Your task to perform on an android device: clear history in the chrome app Image 0: 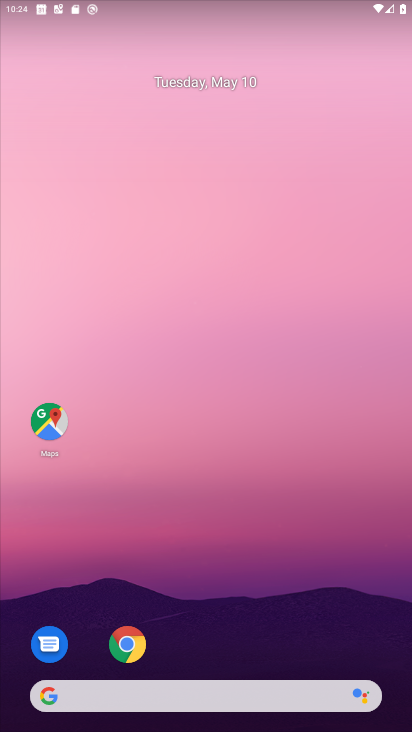
Step 0: drag from (232, 650) to (260, 359)
Your task to perform on an android device: clear history in the chrome app Image 1: 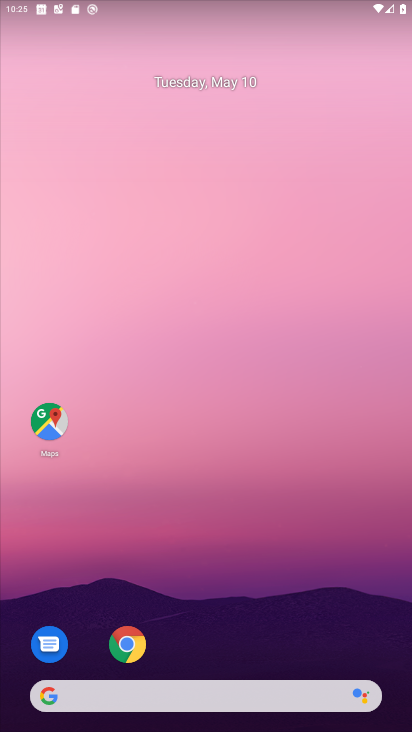
Step 1: drag from (195, 618) to (253, 212)
Your task to perform on an android device: clear history in the chrome app Image 2: 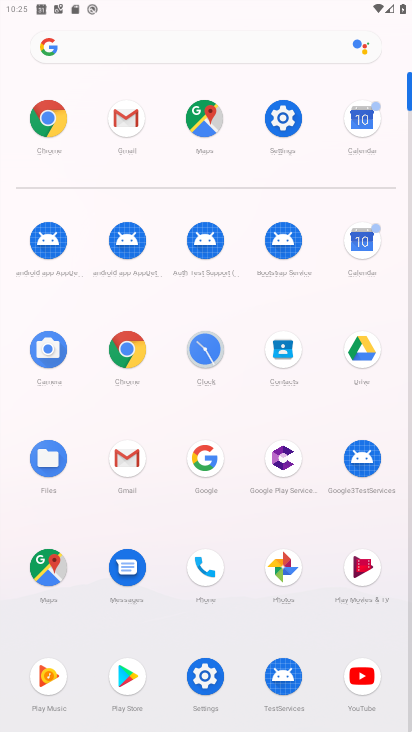
Step 2: click (138, 352)
Your task to perform on an android device: clear history in the chrome app Image 3: 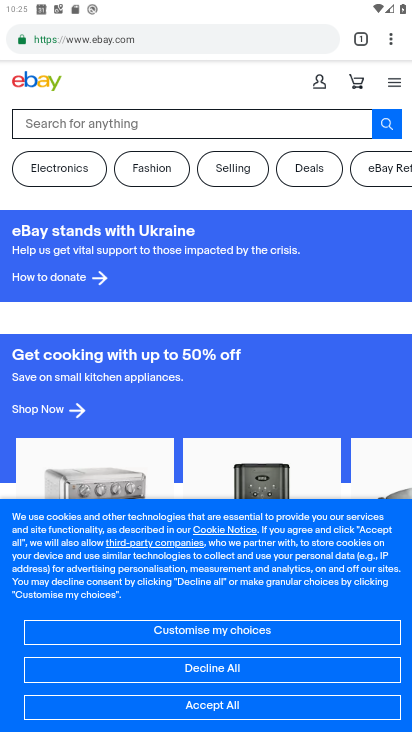
Step 3: click (392, 46)
Your task to perform on an android device: clear history in the chrome app Image 4: 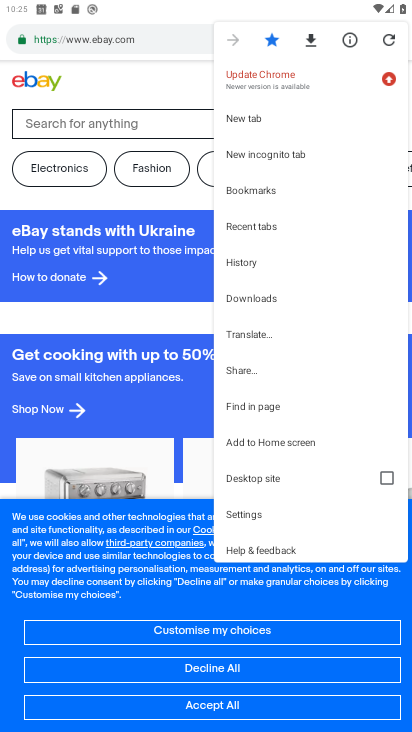
Step 4: click (270, 266)
Your task to perform on an android device: clear history in the chrome app Image 5: 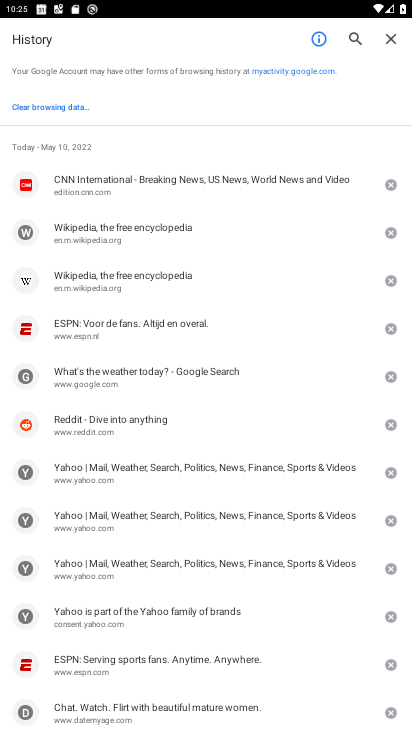
Step 5: click (68, 114)
Your task to perform on an android device: clear history in the chrome app Image 6: 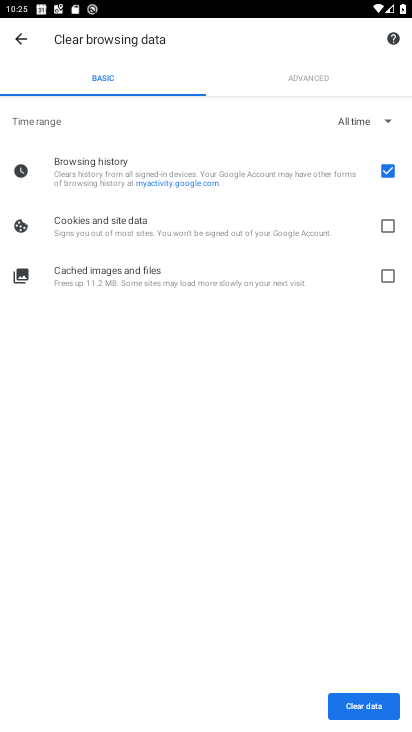
Step 6: click (371, 705)
Your task to perform on an android device: clear history in the chrome app Image 7: 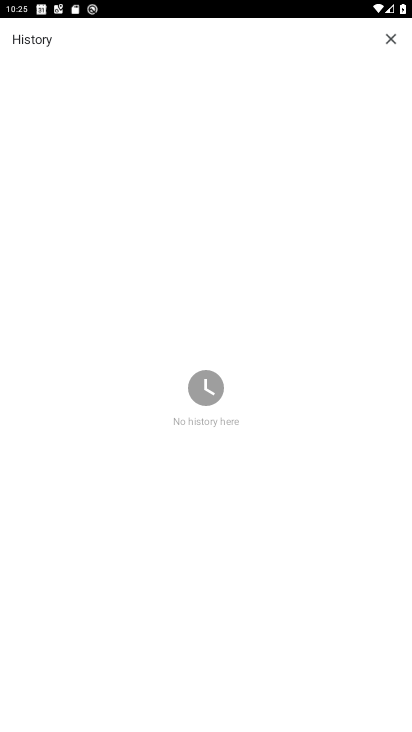
Step 7: task complete